Your task to perform on an android device: add a contact Image 0: 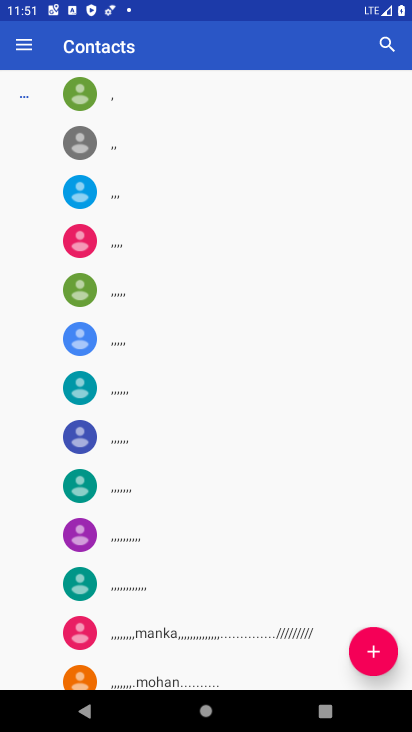
Step 0: press home button
Your task to perform on an android device: add a contact Image 1: 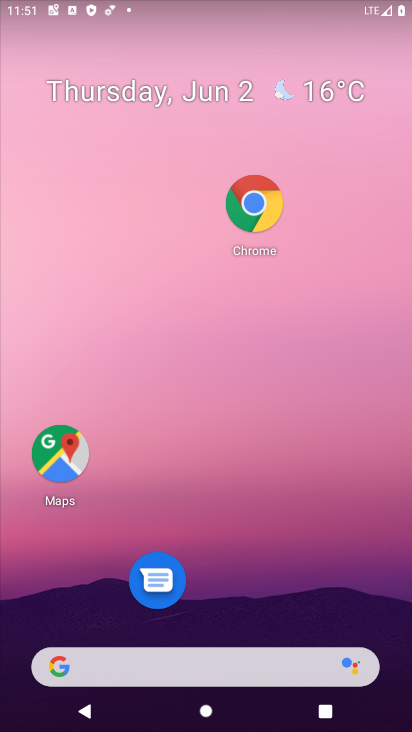
Step 1: drag from (236, 575) to (268, 334)
Your task to perform on an android device: add a contact Image 2: 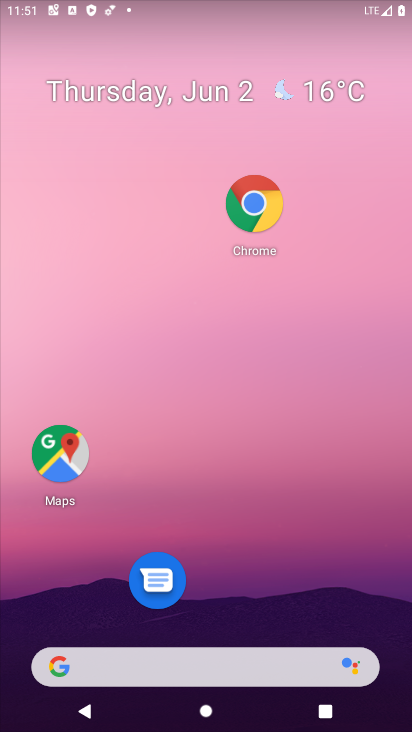
Step 2: drag from (194, 612) to (326, 92)
Your task to perform on an android device: add a contact Image 3: 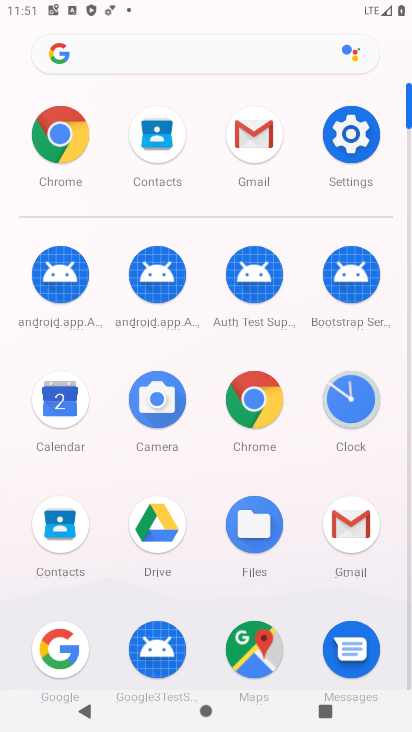
Step 3: click (69, 536)
Your task to perform on an android device: add a contact Image 4: 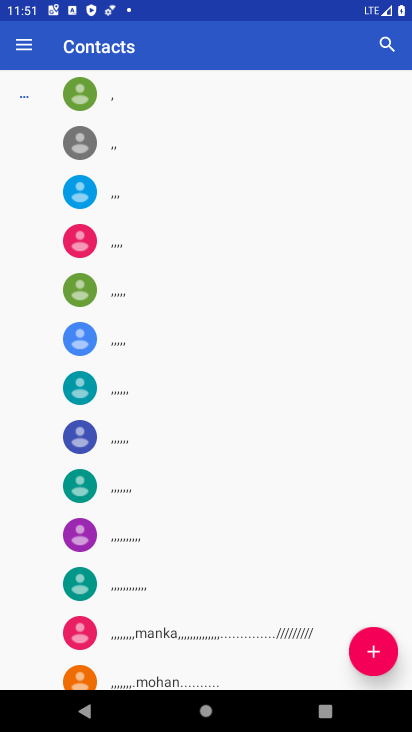
Step 4: click (374, 652)
Your task to perform on an android device: add a contact Image 5: 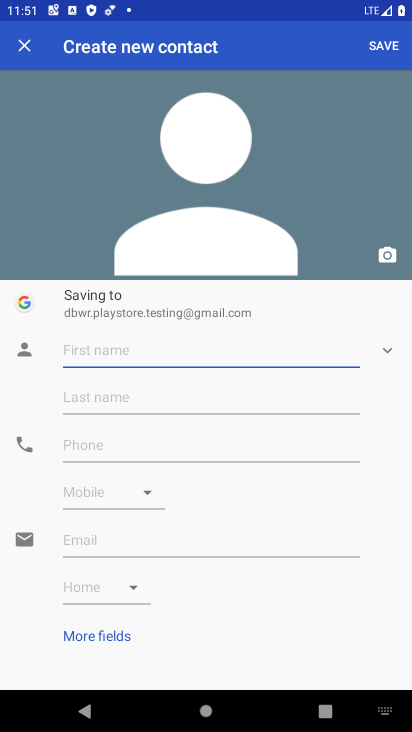
Step 5: type "hgubsdj"
Your task to perform on an android device: add a contact Image 6: 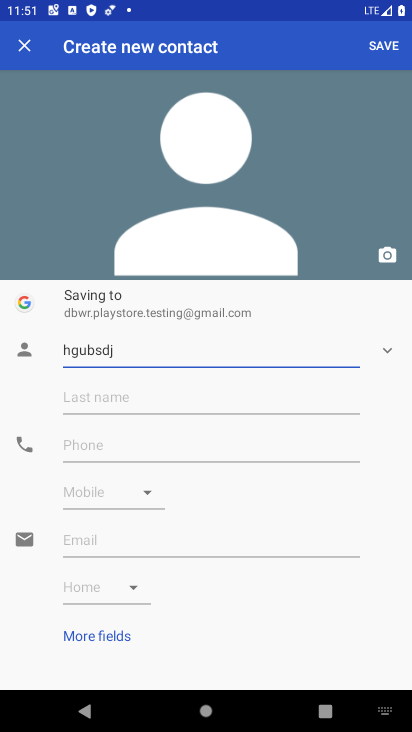
Step 6: click (163, 429)
Your task to perform on an android device: add a contact Image 7: 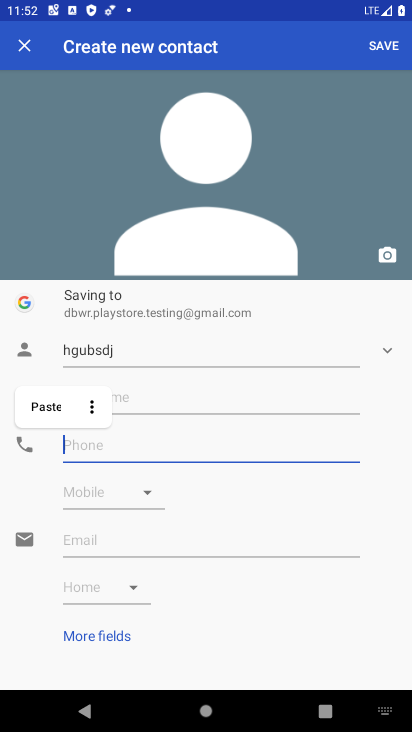
Step 7: type "859647575475"
Your task to perform on an android device: add a contact Image 8: 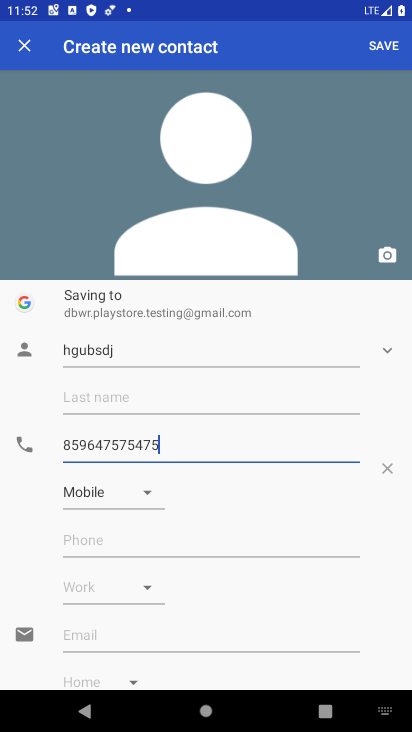
Step 8: click (394, 53)
Your task to perform on an android device: add a contact Image 9: 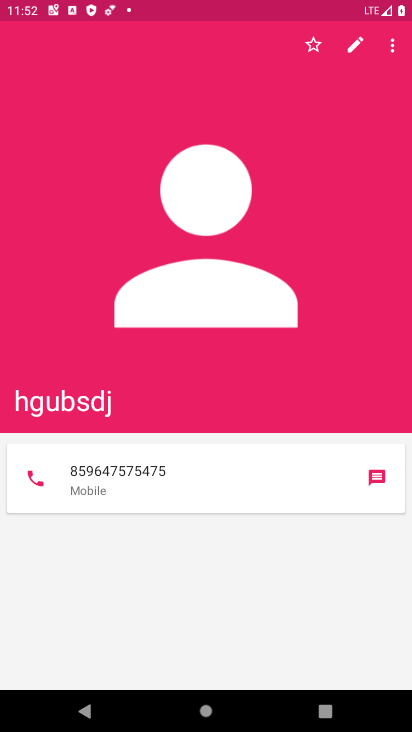
Step 9: task complete